Your task to perform on an android device: choose inbox layout in the gmail app Image 0: 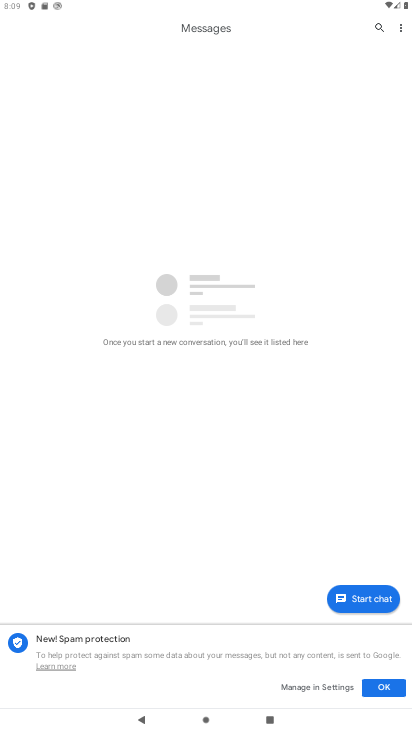
Step 0: press home button
Your task to perform on an android device: choose inbox layout in the gmail app Image 1: 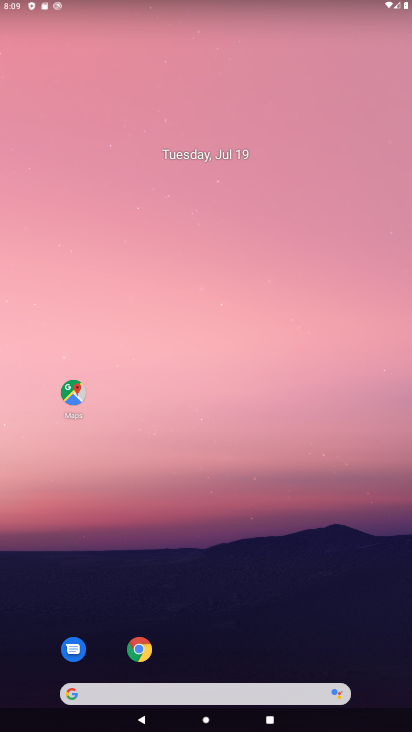
Step 1: drag from (281, 626) to (146, 169)
Your task to perform on an android device: choose inbox layout in the gmail app Image 2: 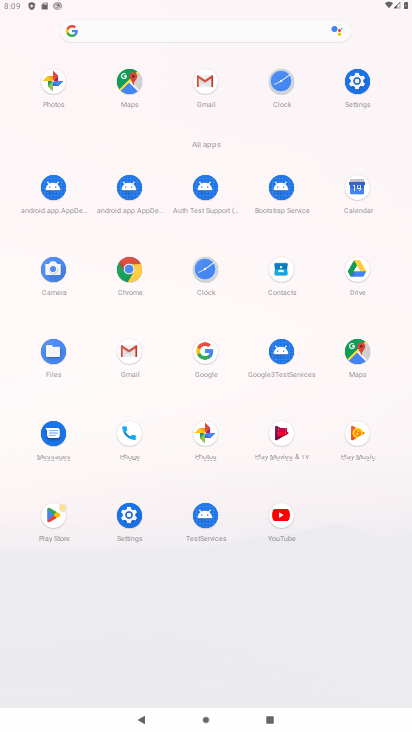
Step 2: click (132, 347)
Your task to perform on an android device: choose inbox layout in the gmail app Image 3: 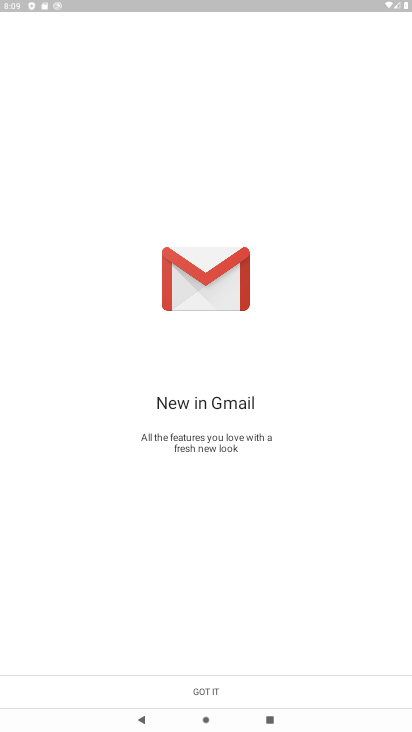
Step 3: click (297, 678)
Your task to perform on an android device: choose inbox layout in the gmail app Image 4: 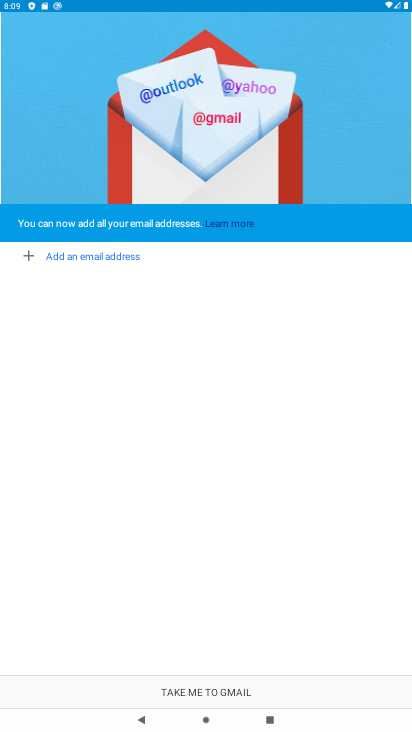
Step 4: click (158, 692)
Your task to perform on an android device: choose inbox layout in the gmail app Image 5: 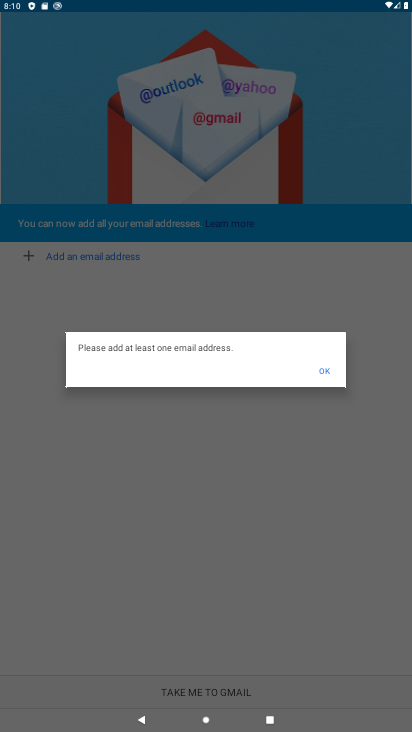
Step 5: click (327, 366)
Your task to perform on an android device: choose inbox layout in the gmail app Image 6: 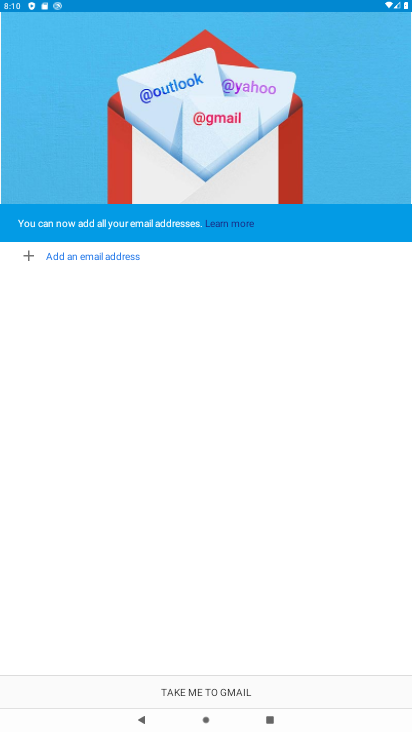
Step 6: task complete